Your task to perform on an android device: delete a single message in the gmail app Image 0: 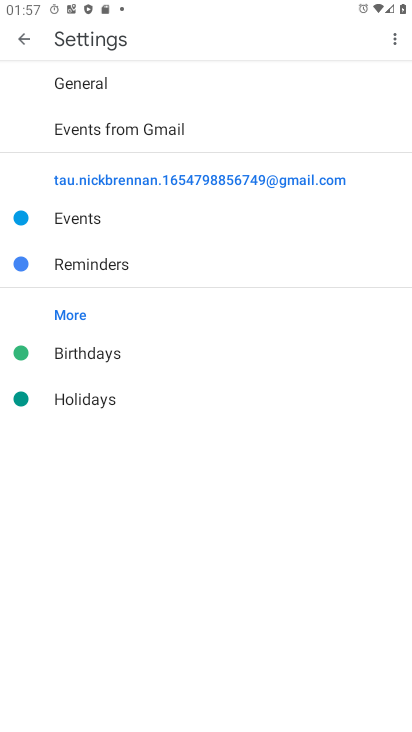
Step 0: press home button
Your task to perform on an android device: delete a single message in the gmail app Image 1: 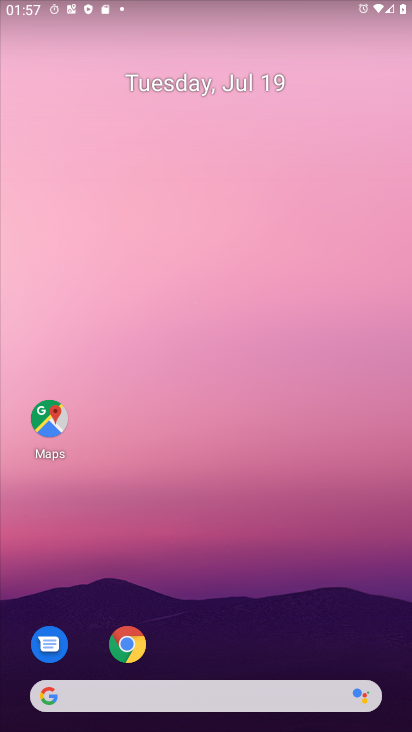
Step 1: drag from (233, 731) to (239, 132)
Your task to perform on an android device: delete a single message in the gmail app Image 2: 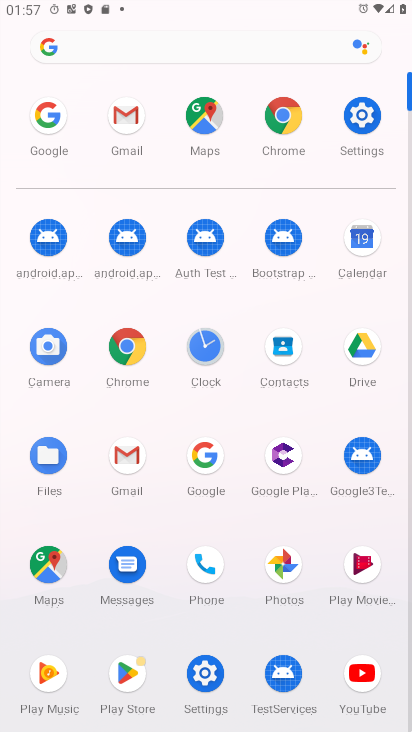
Step 2: click (133, 457)
Your task to perform on an android device: delete a single message in the gmail app Image 3: 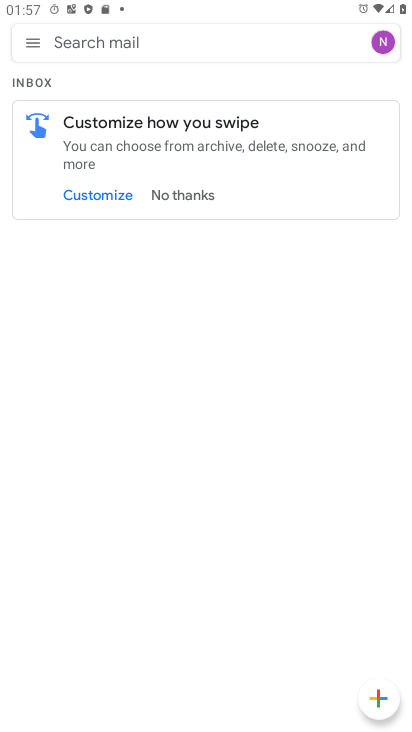
Step 3: task complete